Your task to perform on an android device: Add "razer huntsman" to the cart on walmart.com Image 0: 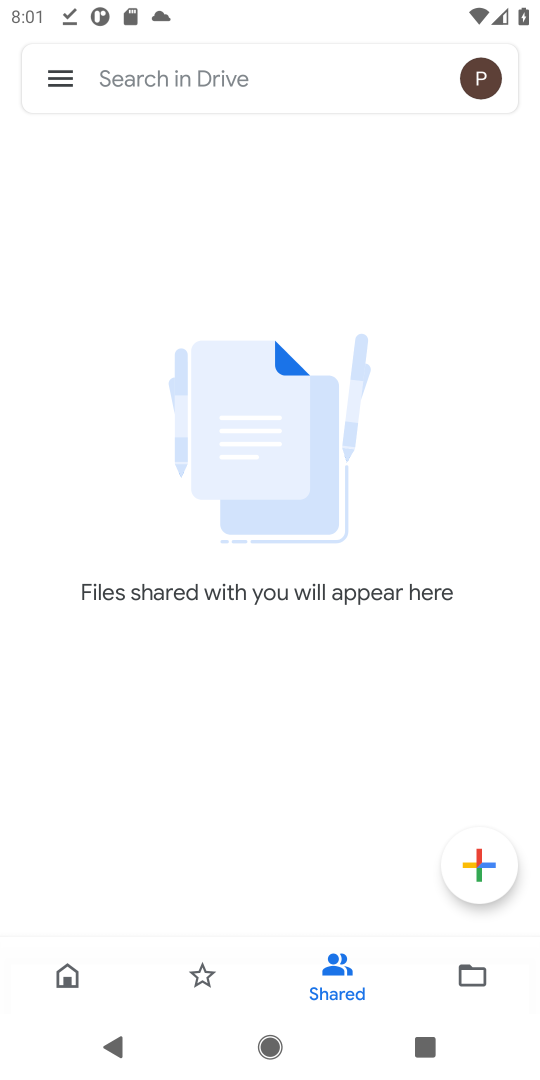
Step 0: press home button
Your task to perform on an android device: Add "razer huntsman" to the cart on walmart.com Image 1: 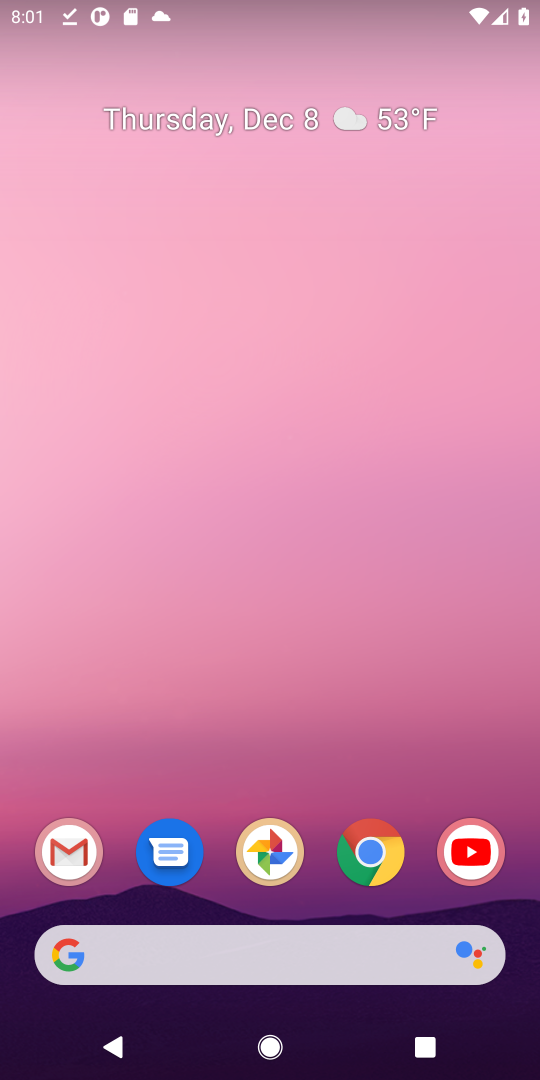
Step 1: click (277, 952)
Your task to perform on an android device: Add "razer huntsman" to the cart on walmart.com Image 2: 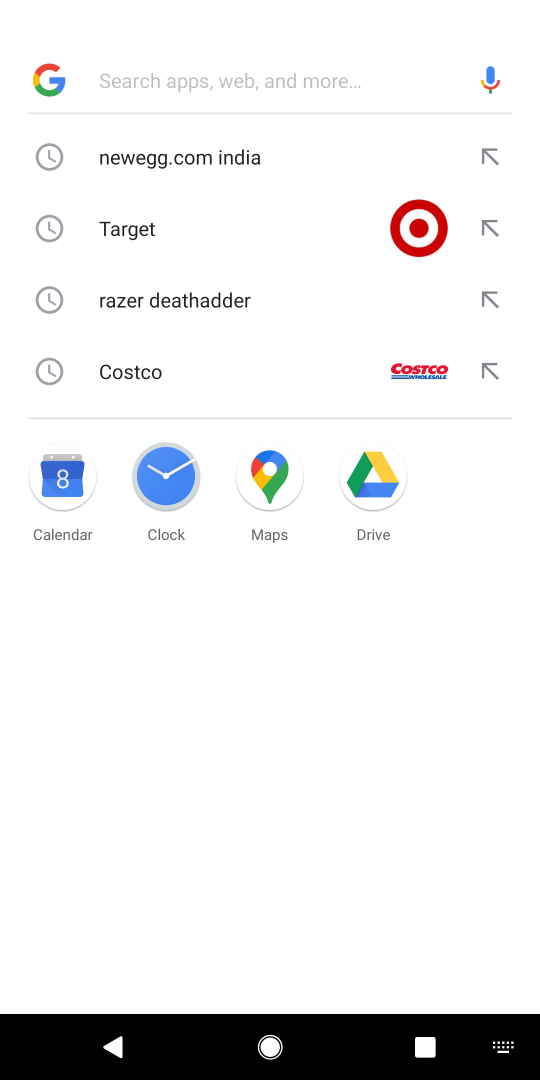
Step 2: type "walmart"
Your task to perform on an android device: Add "razer huntsman" to the cart on walmart.com Image 3: 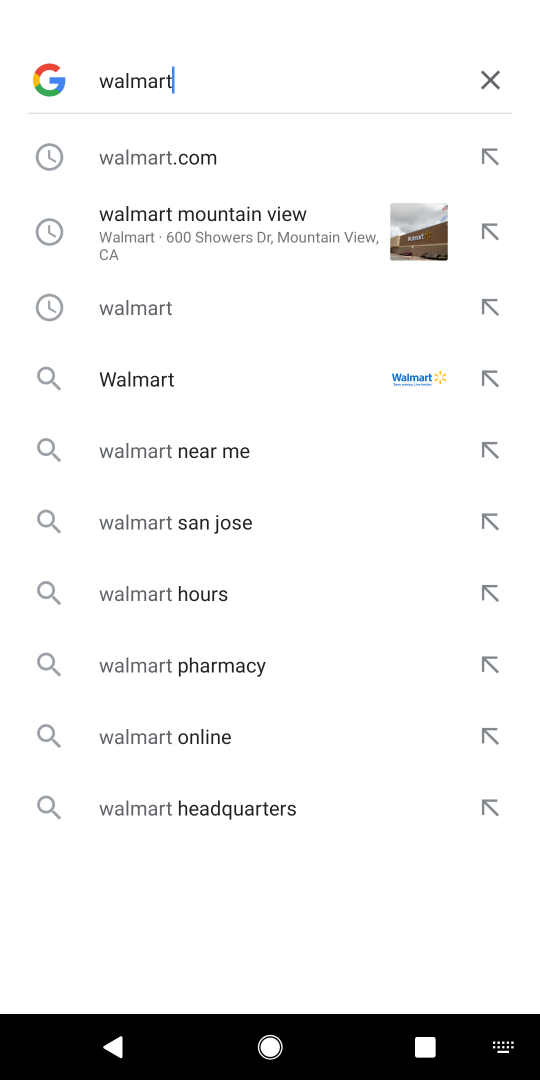
Step 3: click (126, 169)
Your task to perform on an android device: Add "razer huntsman" to the cart on walmart.com Image 4: 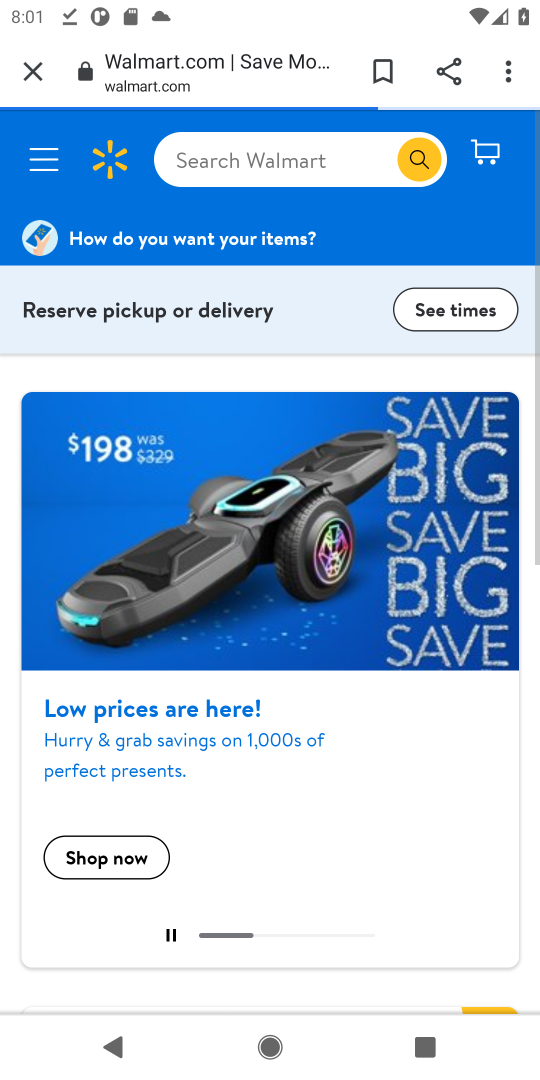
Step 4: click (261, 152)
Your task to perform on an android device: Add "razer huntsman" to the cart on walmart.com Image 5: 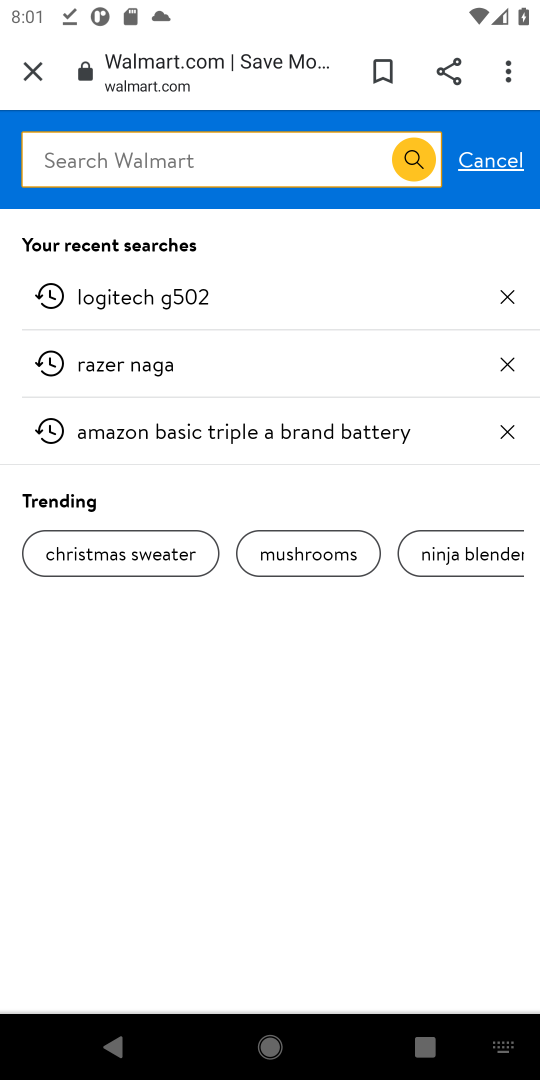
Step 5: type "razer huntsman"
Your task to perform on an android device: Add "razer huntsman" to the cart on walmart.com Image 6: 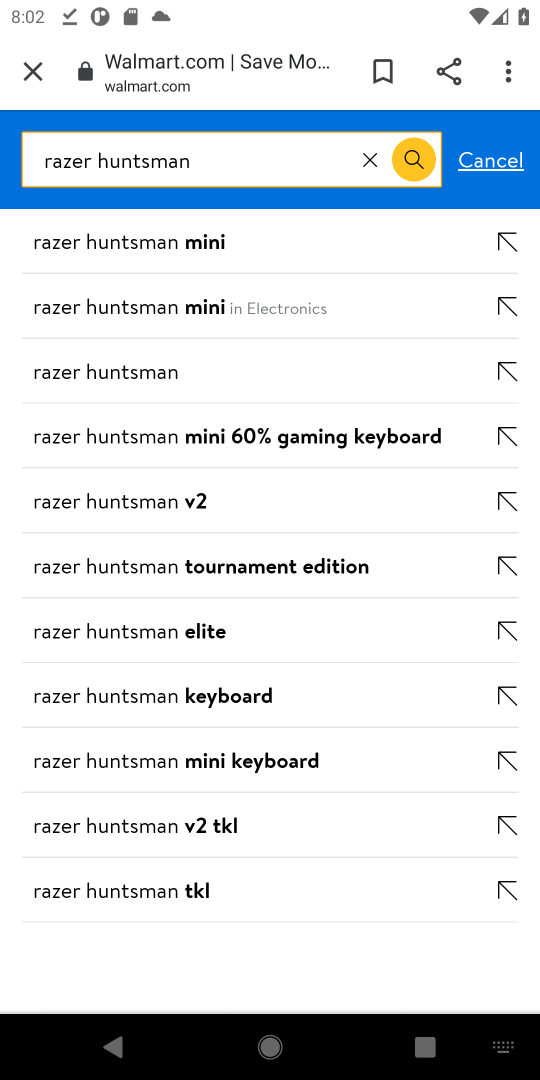
Step 6: click (416, 154)
Your task to perform on an android device: Add "razer huntsman" to the cart on walmart.com Image 7: 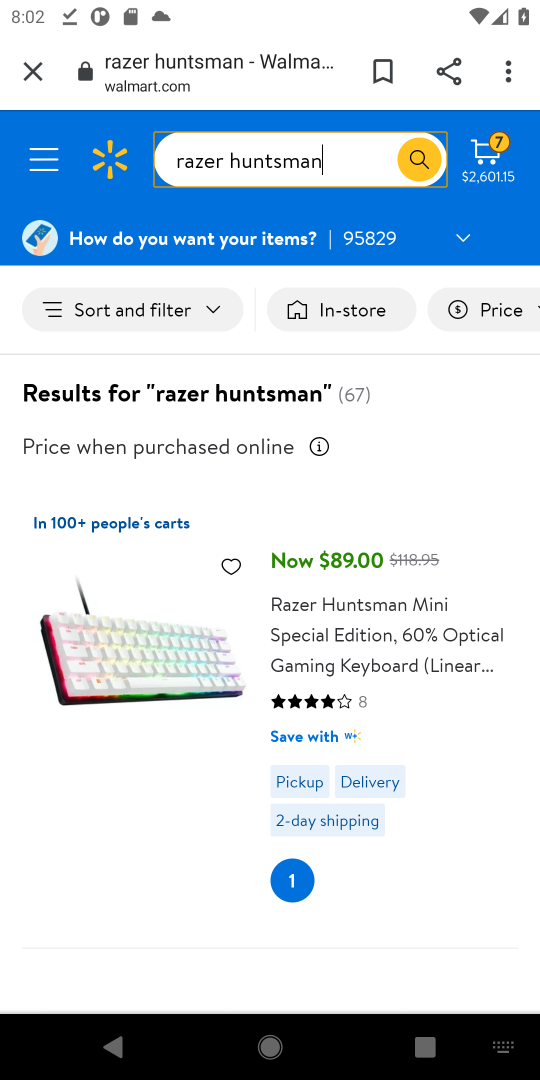
Step 7: drag from (356, 610) to (362, 318)
Your task to perform on an android device: Add "razer huntsman" to the cart on walmart.com Image 8: 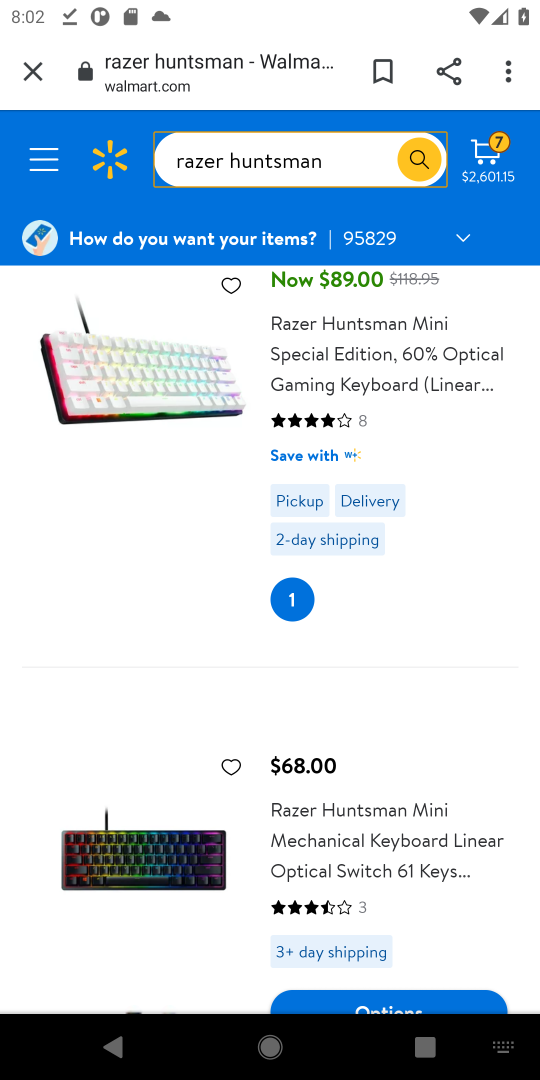
Step 8: click (330, 298)
Your task to perform on an android device: Add "razer huntsman" to the cart on walmart.com Image 9: 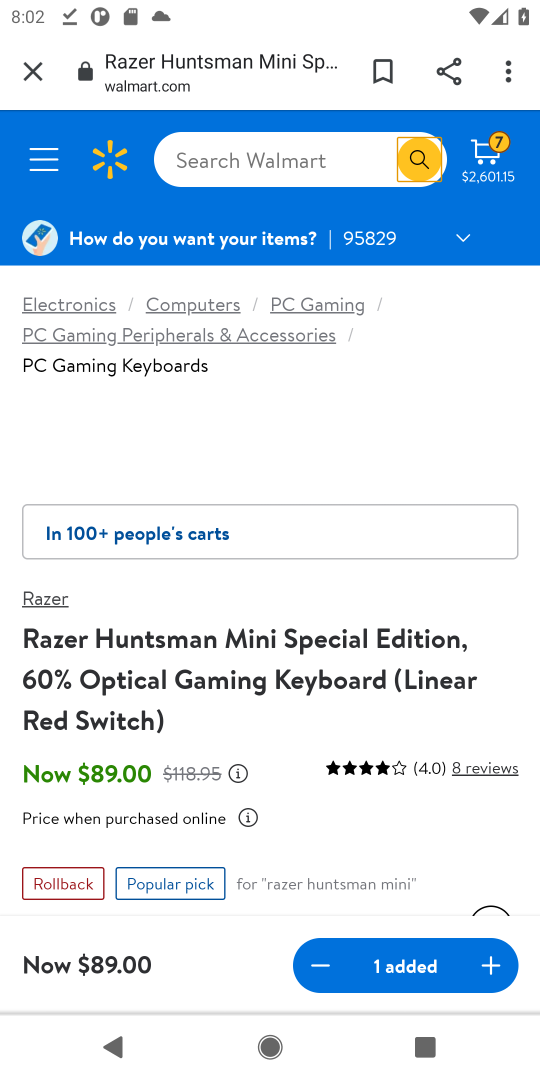
Step 9: click (332, 963)
Your task to perform on an android device: Add "razer huntsman" to the cart on walmart.com Image 10: 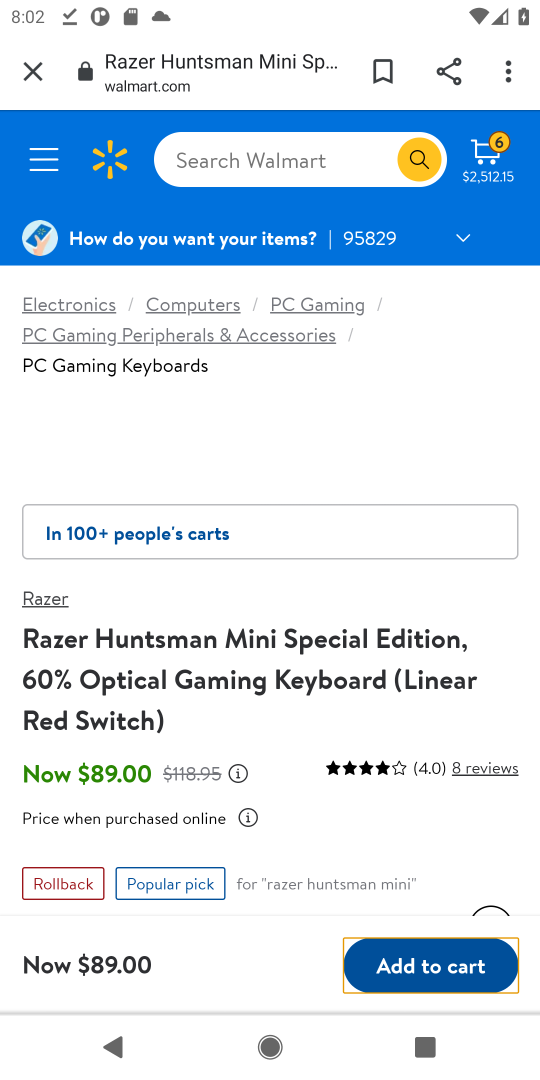
Step 10: task complete